Your task to perform on an android device: Open Google Image 0: 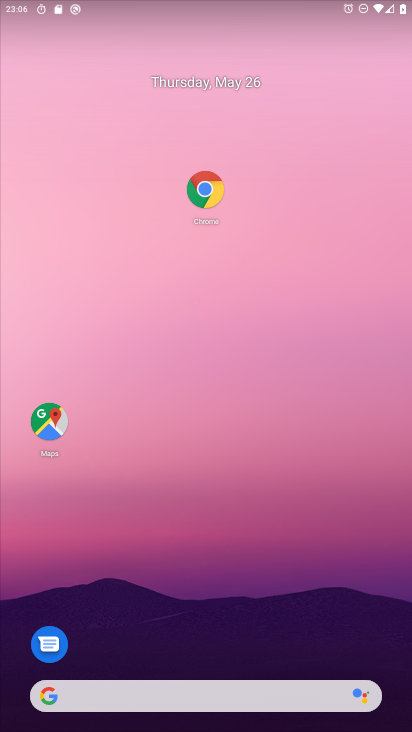
Step 0: drag from (164, 590) to (222, 147)
Your task to perform on an android device: Open Google Image 1: 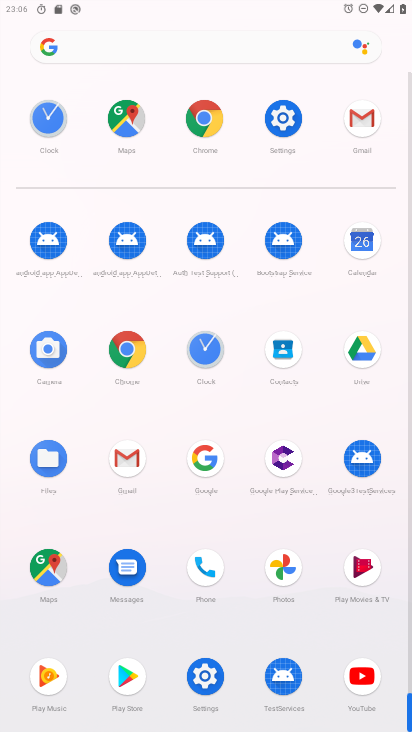
Step 1: click (201, 474)
Your task to perform on an android device: Open Google Image 2: 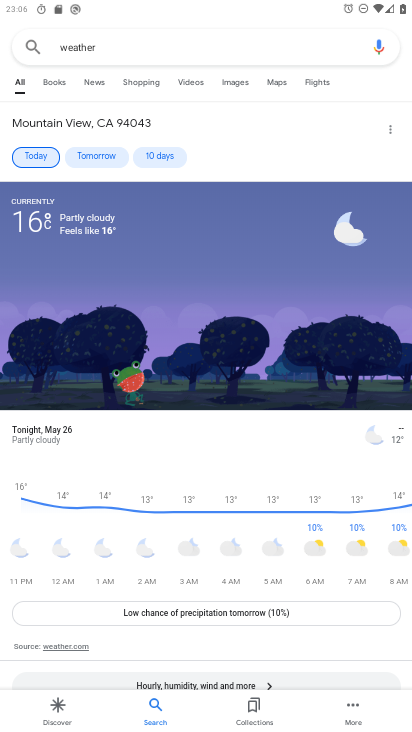
Step 2: task complete